Your task to perform on an android device: turn on translation in the chrome app Image 0: 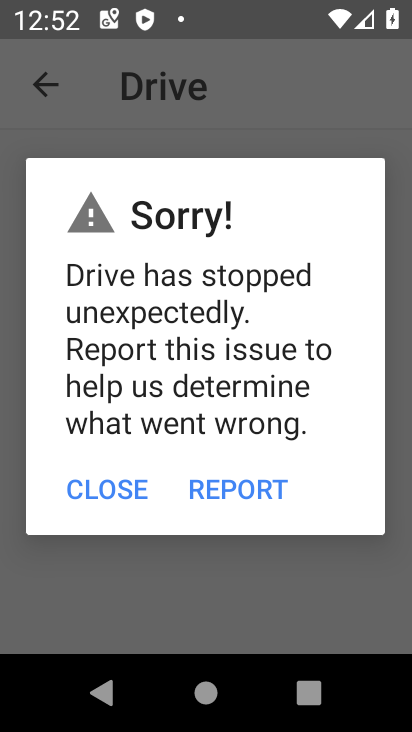
Step 0: press home button
Your task to perform on an android device: turn on translation in the chrome app Image 1: 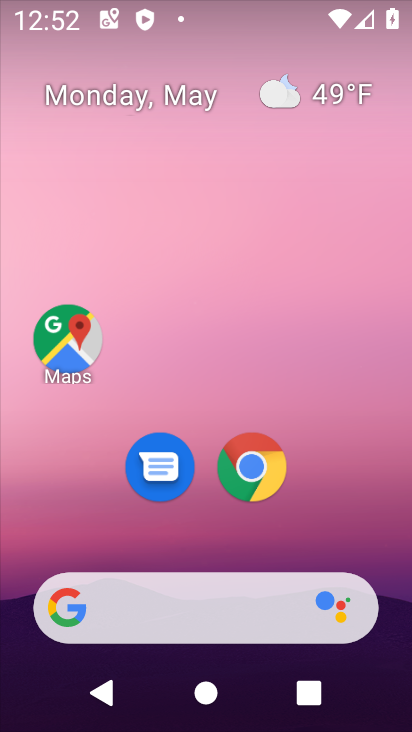
Step 1: drag from (397, 542) to (327, 133)
Your task to perform on an android device: turn on translation in the chrome app Image 2: 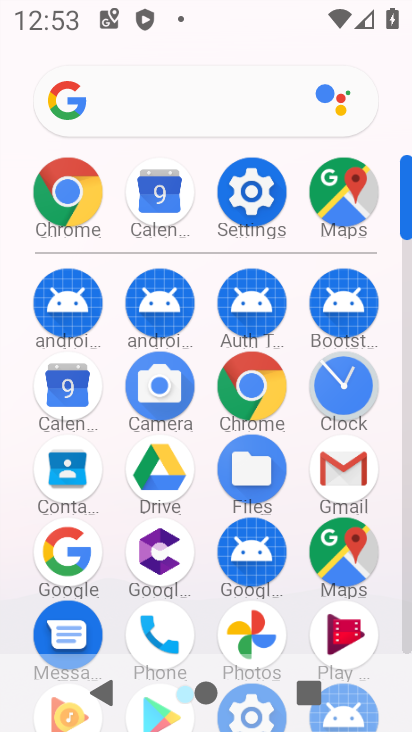
Step 2: click (48, 196)
Your task to perform on an android device: turn on translation in the chrome app Image 3: 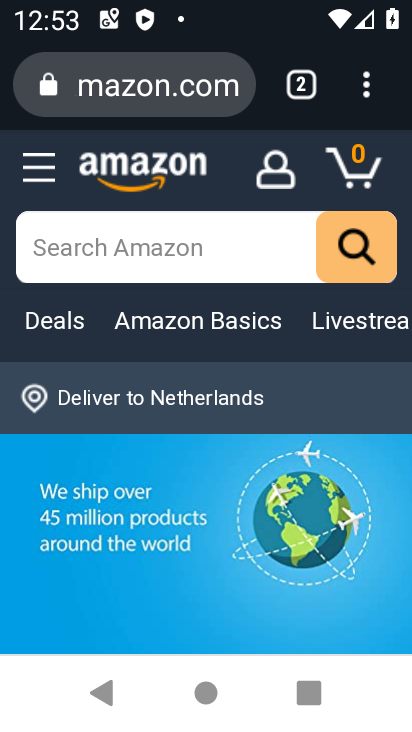
Step 3: drag from (381, 109) to (259, 512)
Your task to perform on an android device: turn on translation in the chrome app Image 4: 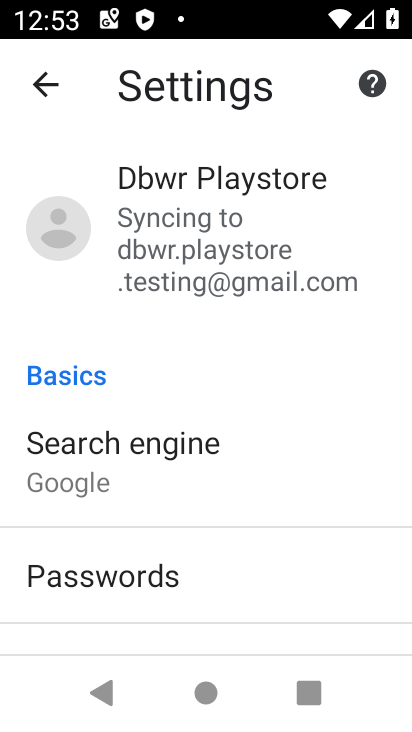
Step 4: drag from (284, 551) to (271, 229)
Your task to perform on an android device: turn on translation in the chrome app Image 5: 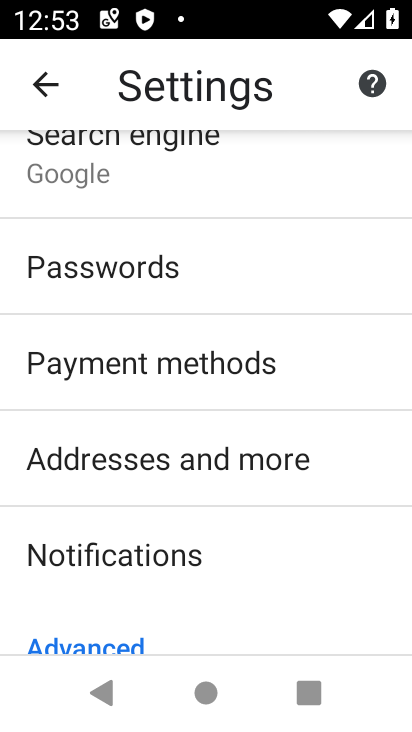
Step 5: drag from (328, 558) to (304, 217)
Your task to perform on an android device: turn on translation in the chrome app Image 6: 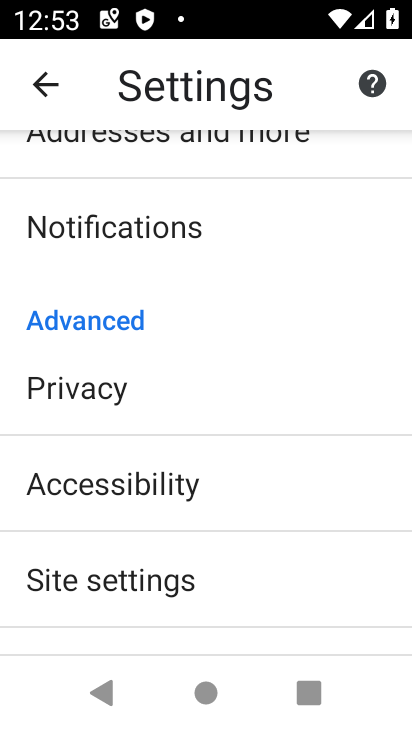
Step 6: drag from (347, 535) to (329, 265)
Your task to perform on an android device: turn on translation in the chrome app Image 7: 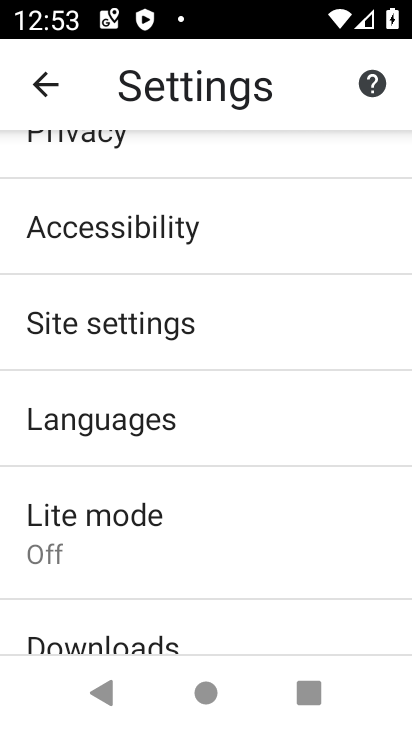
Step 7: click (227, 445)
Your task to perform on an android device: turn on translation in the chrome app Image 8: 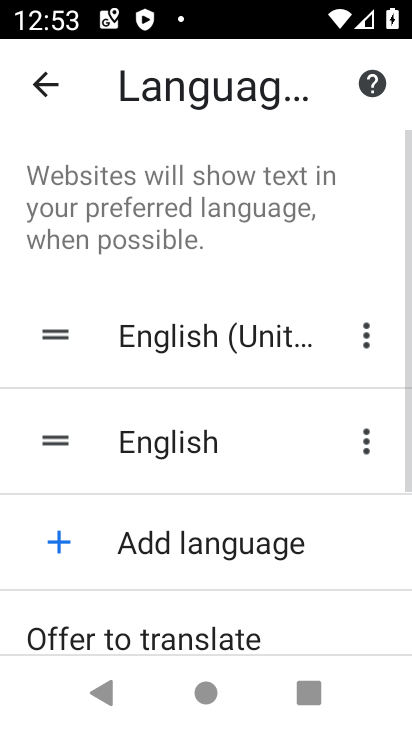
Step 8: task complete